Your task to perform on an android device: Clear the shopping cart on target. Search for logitech g903 on target, select the first entry, add it to the cart, then select checkout. Image 0: 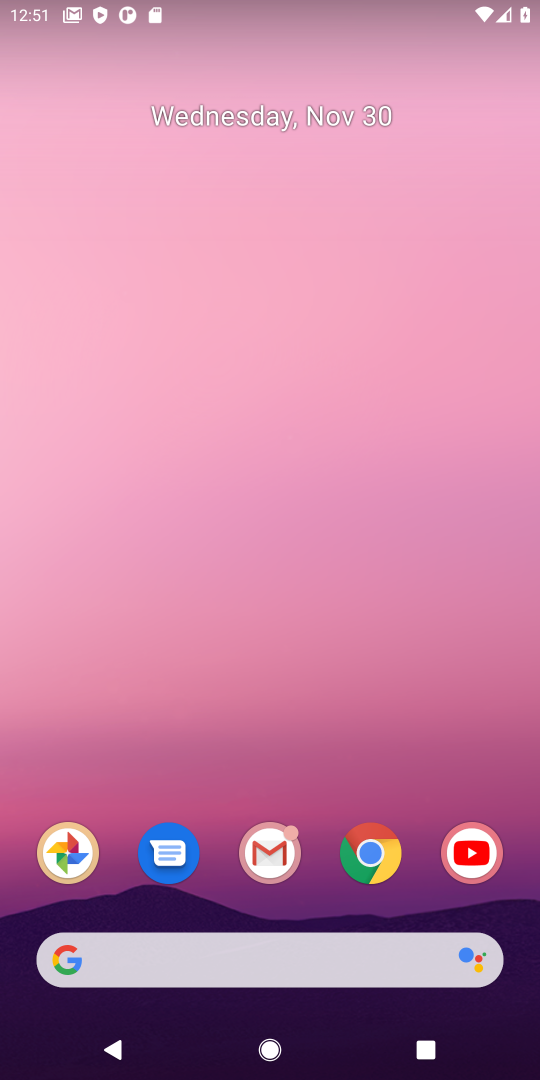
Step 0: click (371, 844)
Your task to perform on an android device: Clear the shopping cart on target. Search for logitech g903 on target, select the first entry, add it to the cart, then select checkout. Image 1: 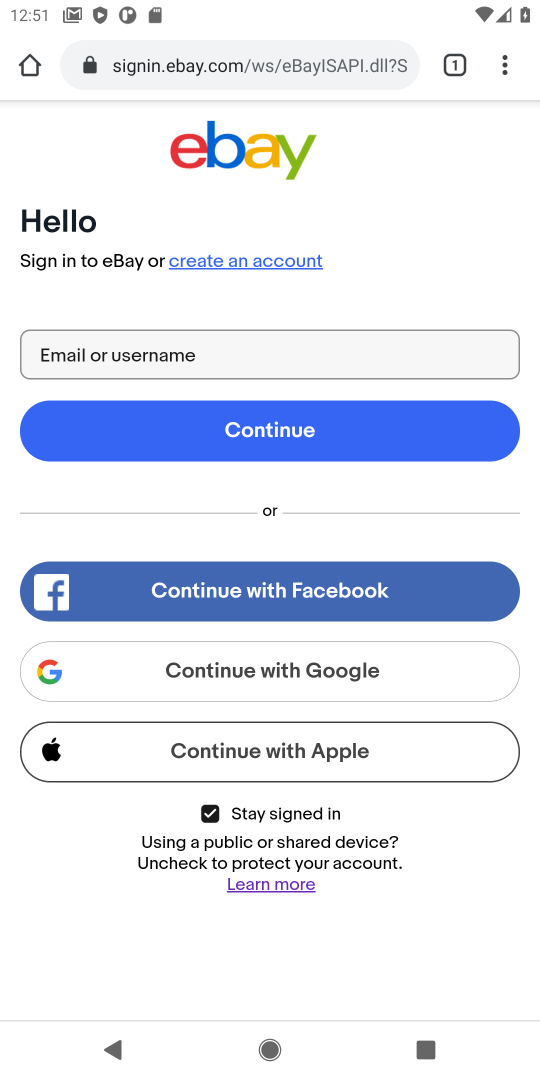
Step 1: click (238, 67)
Your task to perform on an android device: Clear the shopping cart on target. Search for logitech g903 on target, select the first entry, add it to the cart, then select checkout. Image 2: 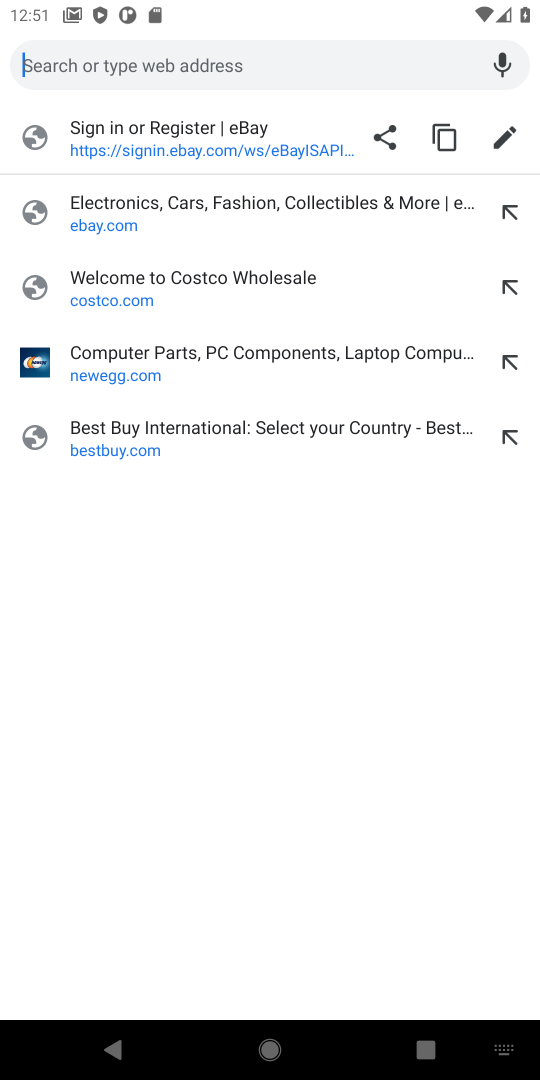
Step 2: type "target.com"
Your task to perform on an android device: Clear the shopping cart on target. Search for logitech g903 on target, select the first entry, add it to the cart, then select checkout. Image 3: 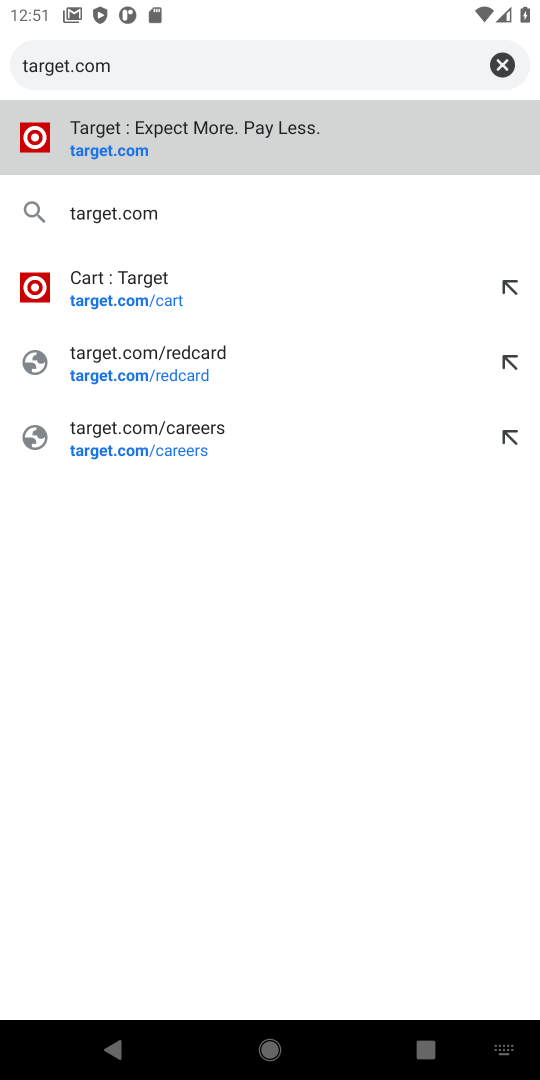
Step 3: click (103, 157)
Your task to perform on an android device: Clear the shopping cart on target. Search for logitech g903 on target, select the first entry, add it to the cart, then select checkout. Image 4: 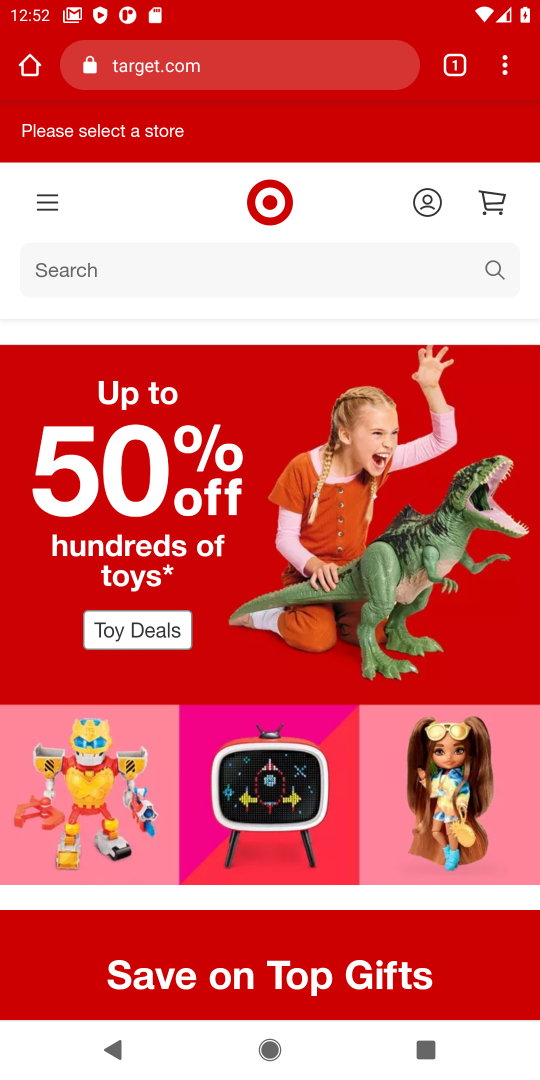
Step 4: click (488, 204)
Your task to perform on an android device: Clear the shopping cart on target. Search for logitech g903 on target, select the first entry, add it to the cart, then select checkout. Image 5: 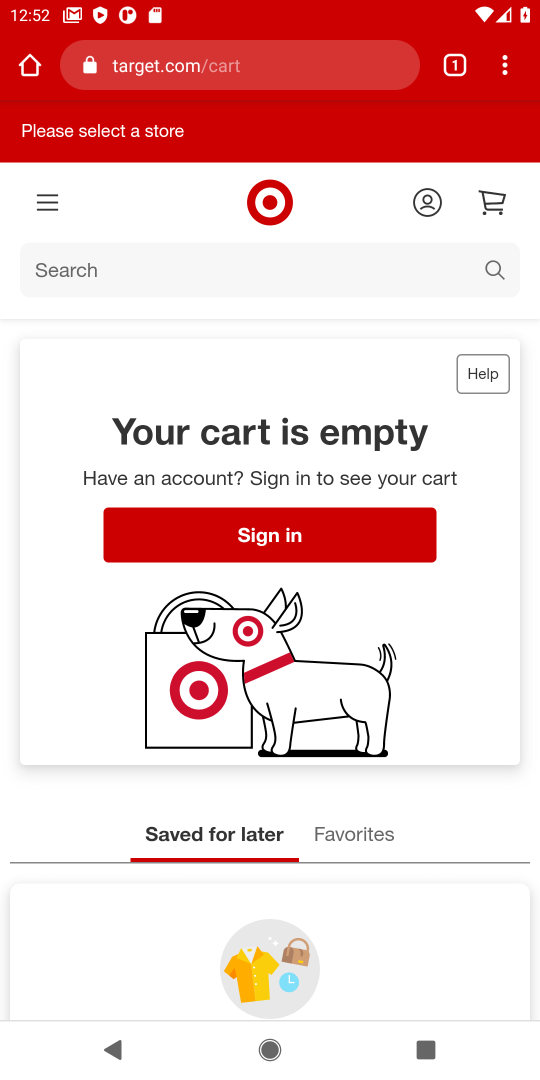
Step 5: click (73, 262)
Your task to perform on an android device: Clear the shopping cart on target. Search for logitech g903 on target, select the first entry, add it to the cart, then select checkout. Image 6: 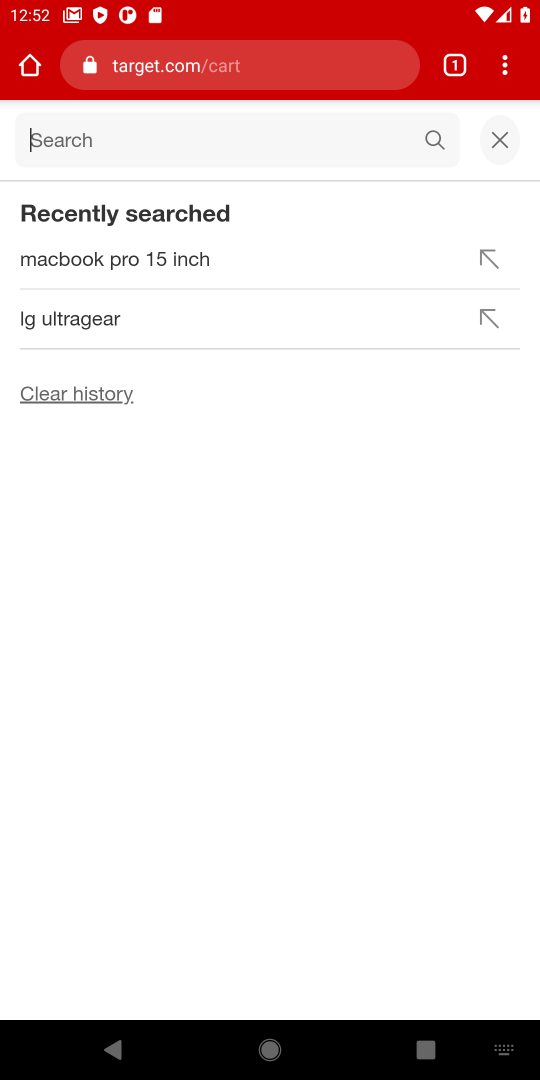
Step 6: type "logitech g903"
Your task to perform on an android device: Clear the shopping cart on target. Search for logitech g903 on target, select the first entry, add it to the cart, then select checkout. Image 7: 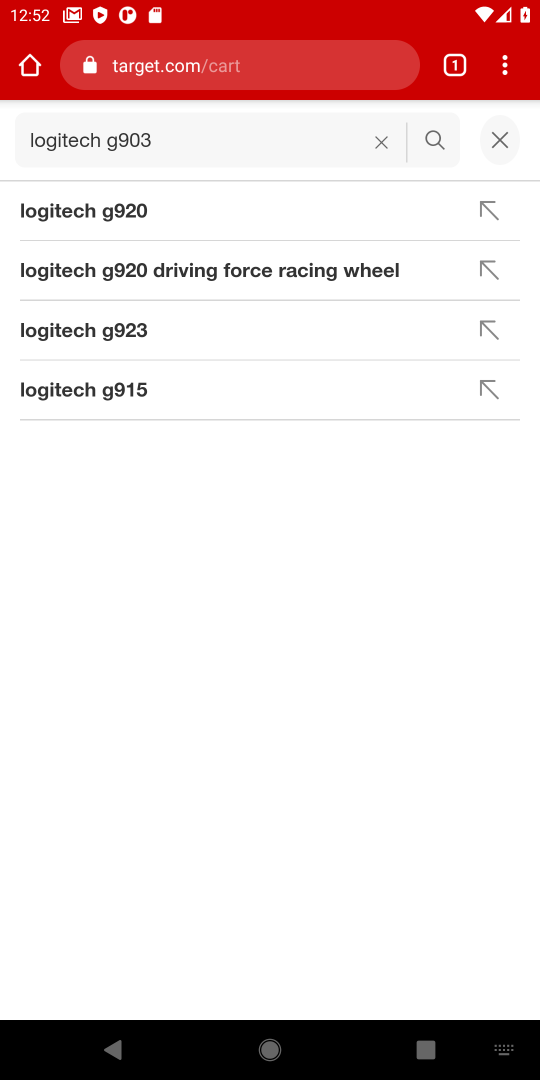
Step 7: click (435, 144)
Your task to perform on an android device: Clear the shopping cart on target. Search for logitech g903 on target, select the first entry, add it to the cart, then select checkout. Image 8: 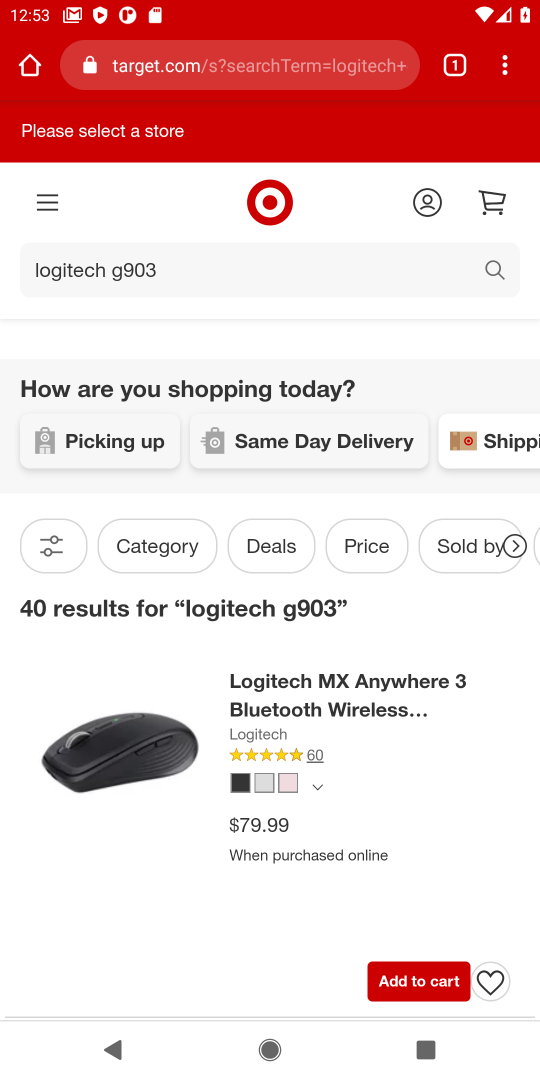
Step 8: click (485, 206)
Your task to perform on an android device: Clear the shopping cart on target. Search for logitech g903 on target, select the first entry, add it to the cart, then select checkout. Image 9: 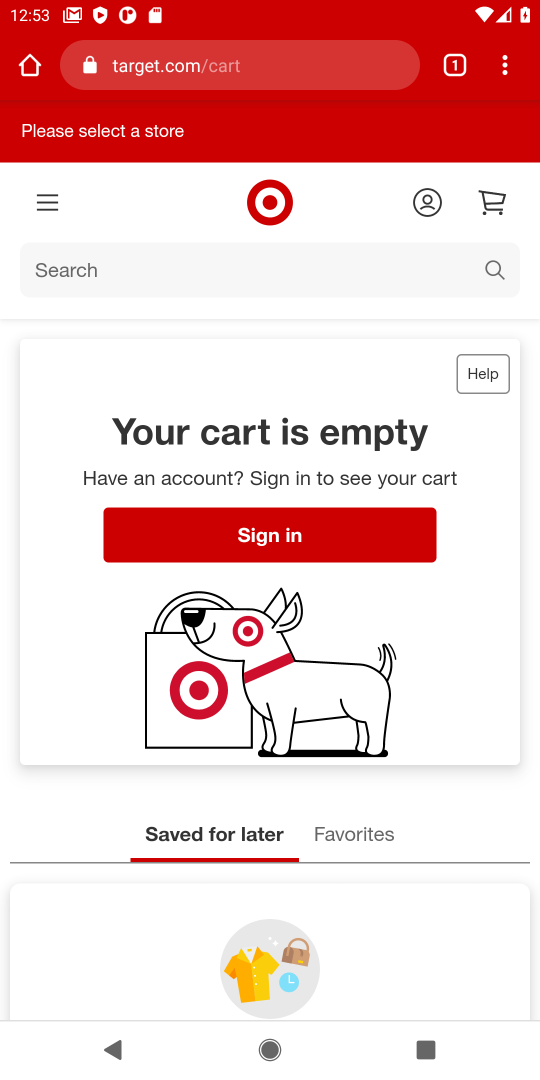
Step 9: click (80, 271)
Your task to perform on an android device: Clear the shopping cart on target. Search for logitech g903 on target, select the first entry, add it to the cart, then select checkout. Image 10: 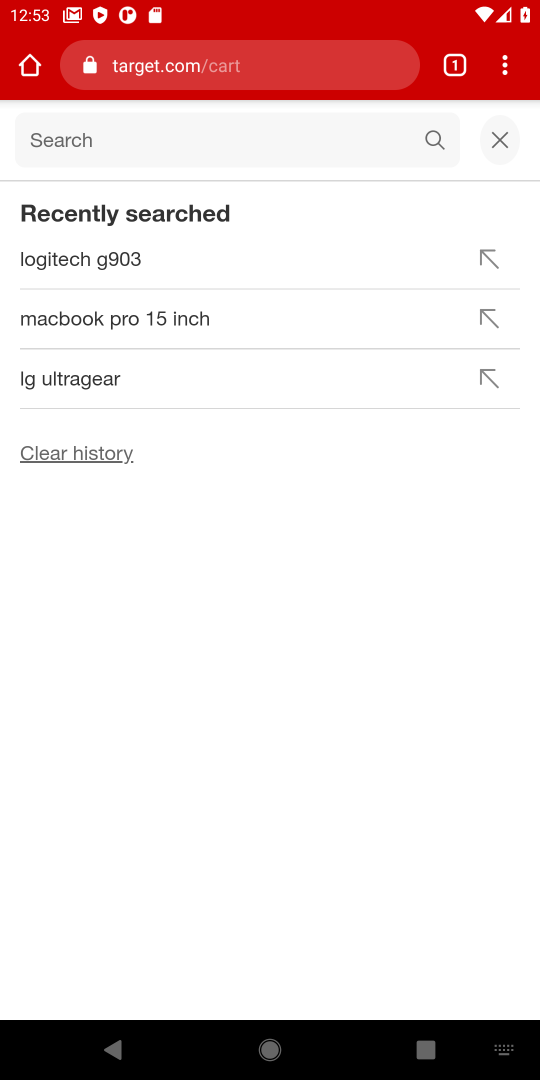
Step 10: type " logitech g903"
Your task to perform on an android device: Clear the shopping cart on target. Search for logitech g903 on target, select the first entry, add it to the cart, then select checkout. Image 11: 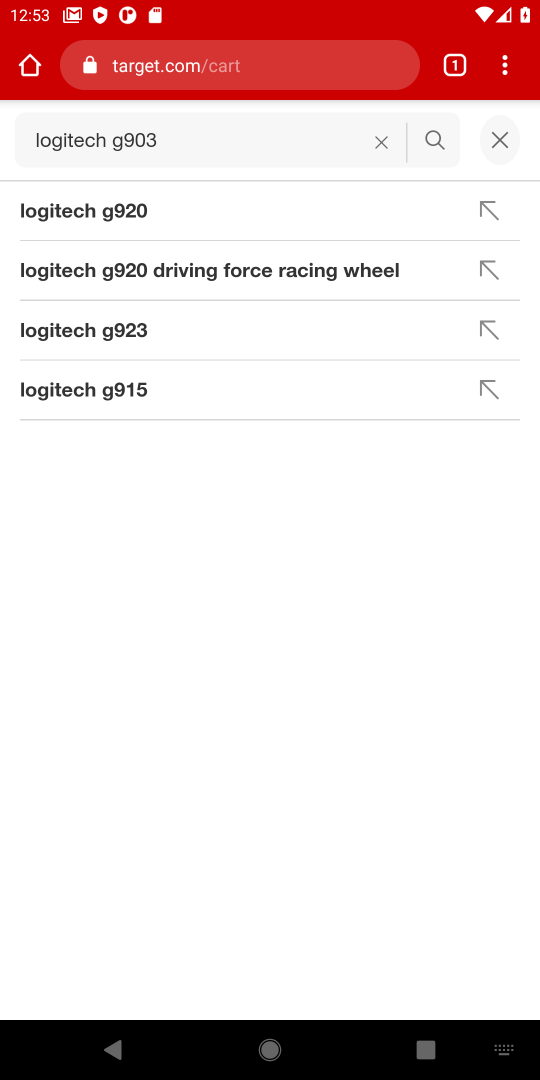
Step 11: click (425, 132)
Your task to perform on an android device: Clear the shopping cart on target. Search for logitech g903 on target, select the first entry, add it to the cart, then select checkout. Image 12: 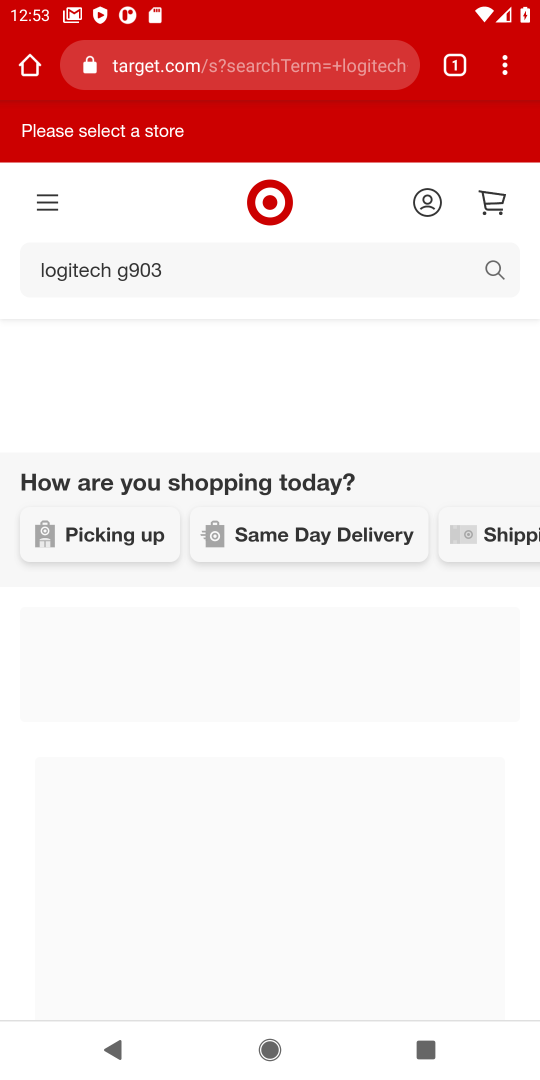
Step 12: task complete